Your task to perform on an android device: empty trash in google photos Image 0: 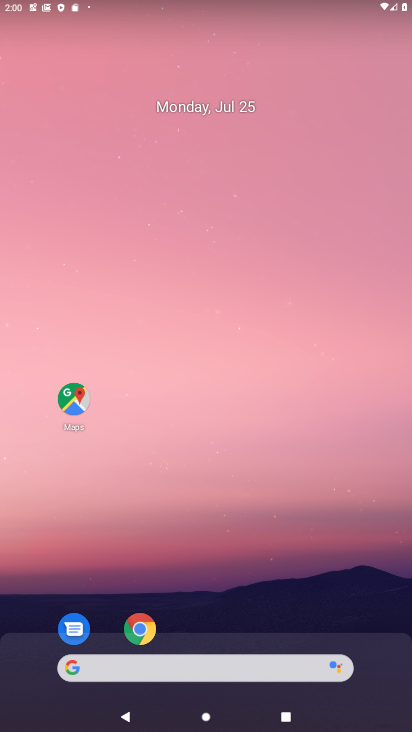
Step 0: drag from (219, 648) to (232, 28)
Your task to perform on an android device: empty trash in google photos Image 1: 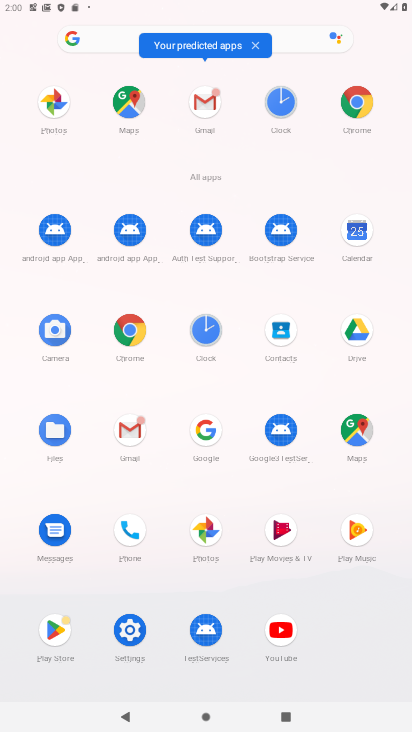
Step 1: click (207, 544)
Your task to perform on an android device: empty trash in google photos Image 2: 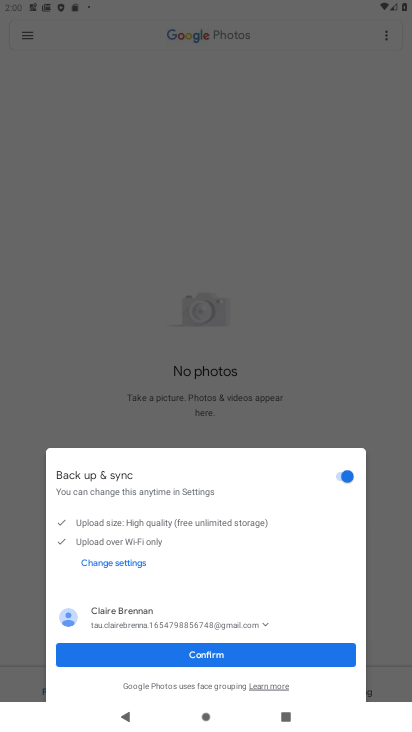
Step 2: click (203, 657)
Your task to perform on an android device: empty trash in google photos Image 3: 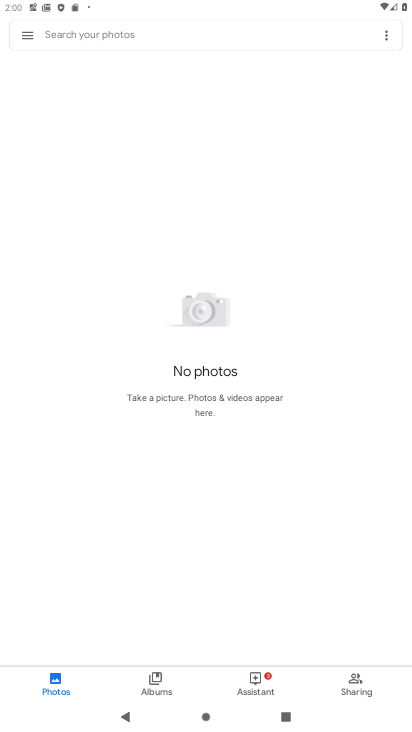
Step 3: task complete